Your task to perform on an android device: Open display settings Image 0: 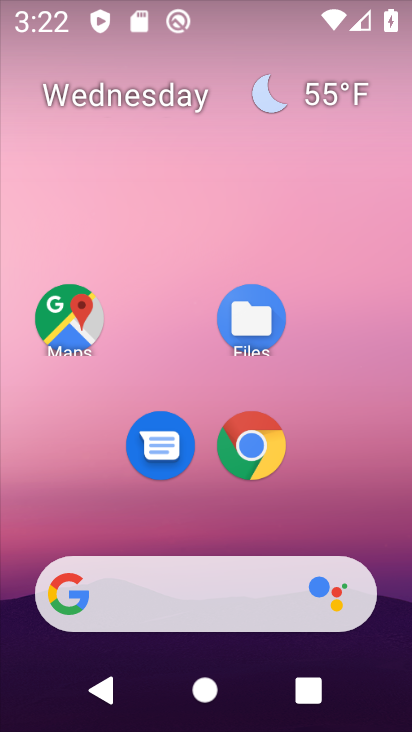
Step 0: drag from (326, 512) to (344, 209)
Your task to perform on an android device: Open display settings Image 1: 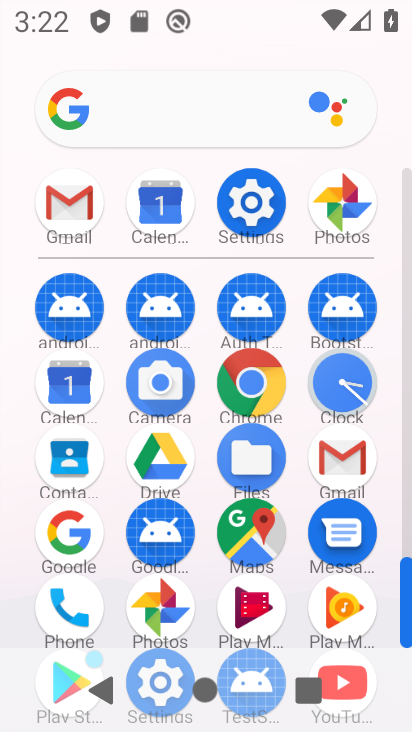
Step 1: click (238, 202)
Your task to perform on an android device: Open display settings Image 2: 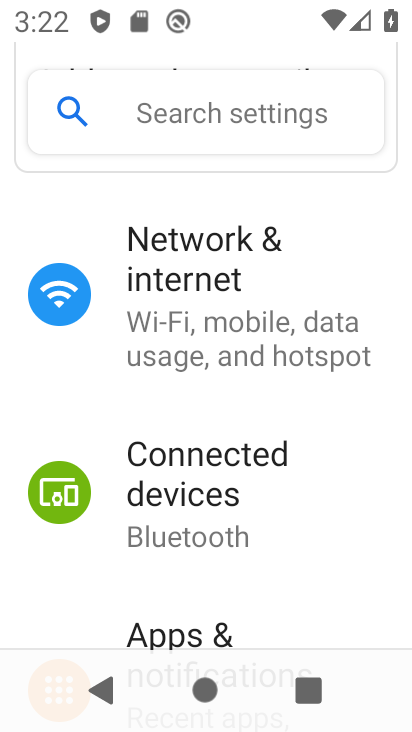
Step 2: drag from (326, 605) to (318, 444)
Your task to perform on an android device: Open display settings Image 3: 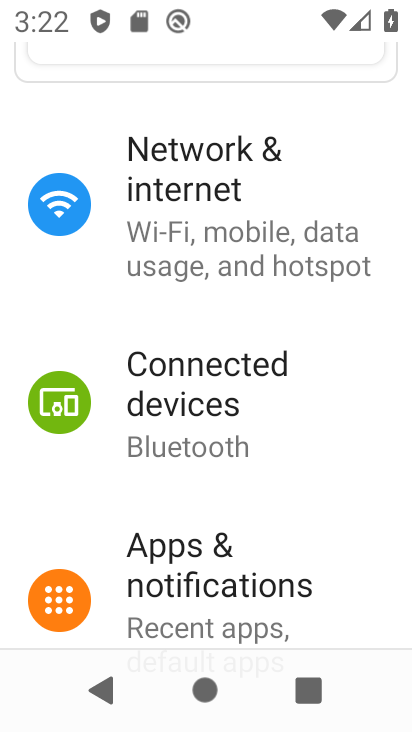
Step 3: drag from (325, 497) to (343, 355)
Your task to perform on an android device: Open display settings Image 4: 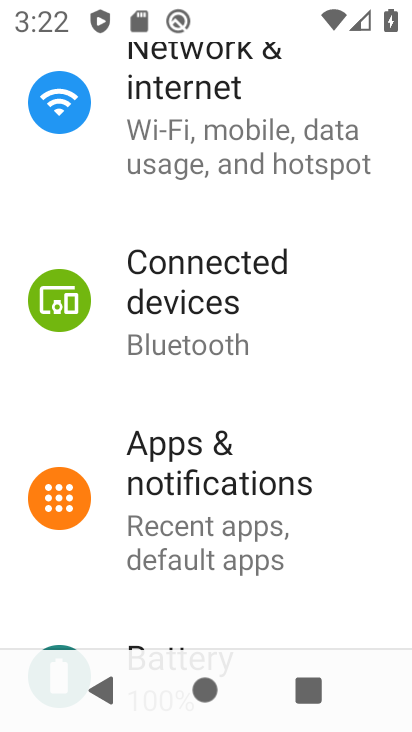
Step 4: drag from (379, 606) to (372, 227)
Your task to perform on an android device: Open display settings Image 5: 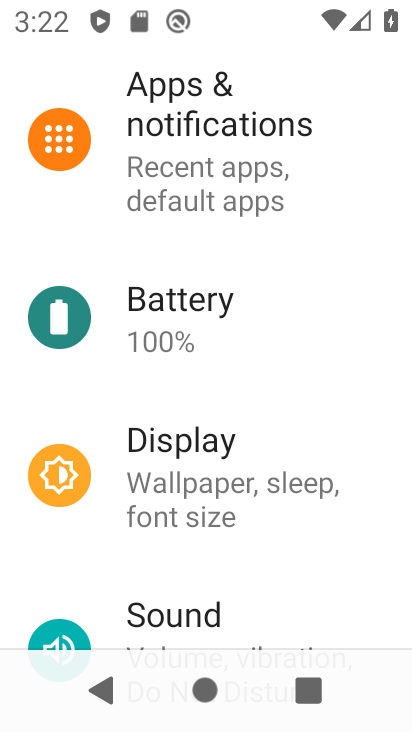
Step 5: click (225, 415)
Your task to perform on an android device: Open display settings Image 6: 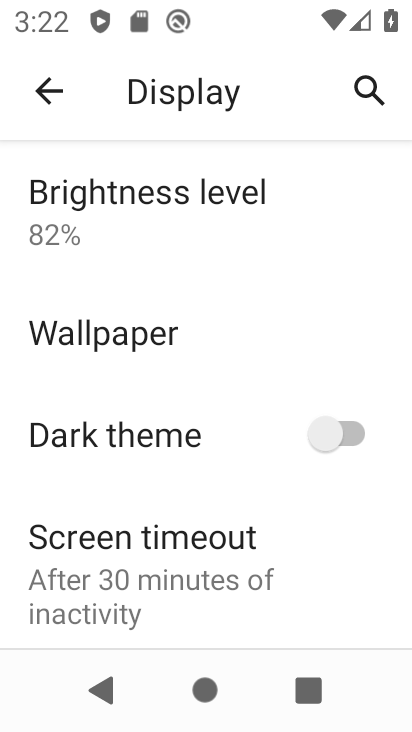
Step 6: task complete